Your task to perform on an android device: manage bookmarks in the chrome app Image 0: 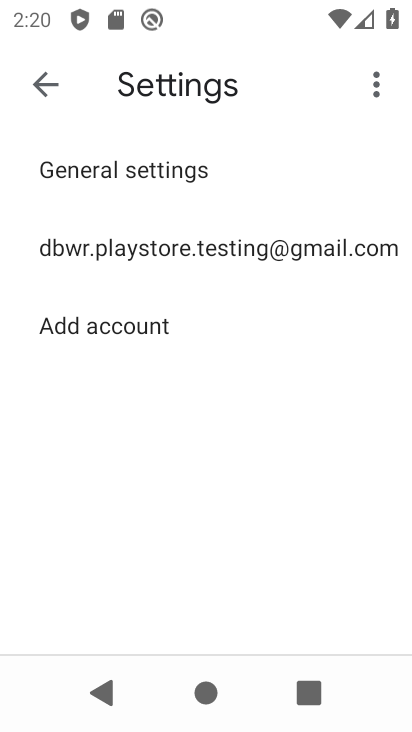
Step 0: press home button
Your task to perform on an android device: manage bookmarks in the chrome app Image 1: 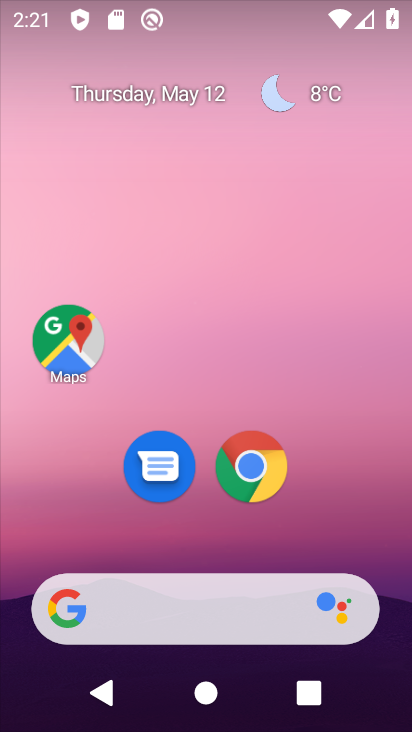
Step 1: click (272, 476)
Your task to perform on an android device: manage bookmarks in the chrome app Image 2: 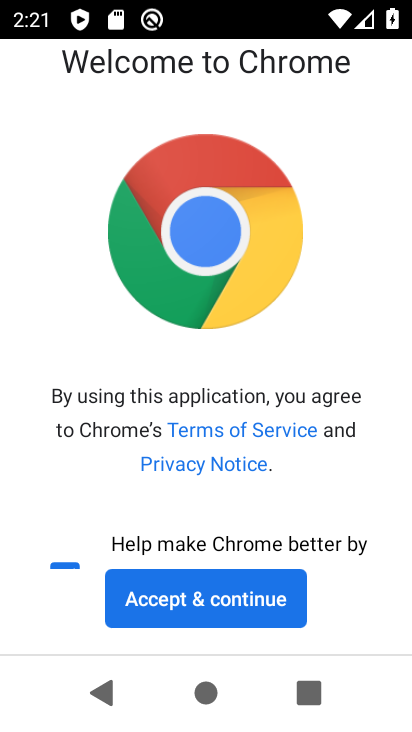
Step 2: click (194, 597)
Your task to perform on an android device: manage bookmarks in the chrome app Image 3: 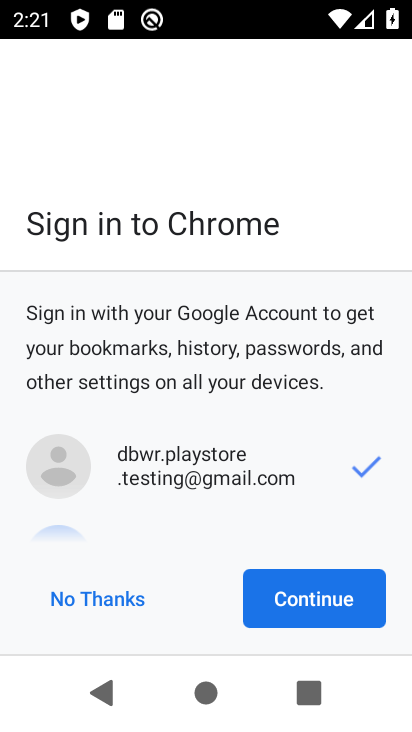
Step 3: click (309, 604)
Your task to perform on an android device: manage bookmarks in the chrome app Image 4: 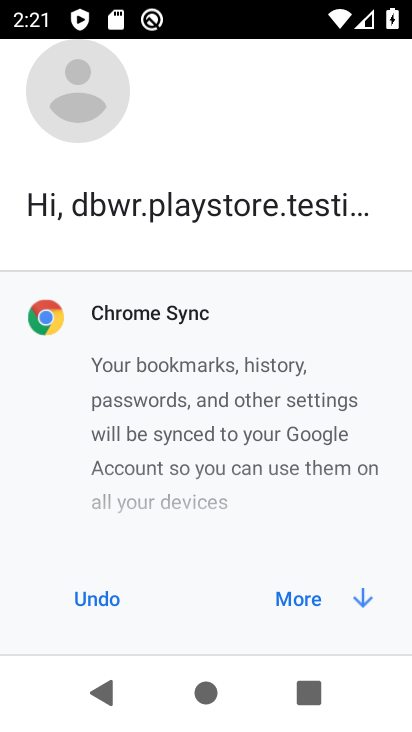
Step 4: click (309, 604)
Your task to perform on an android device: manage bookmarks in the chrome app Image 5: 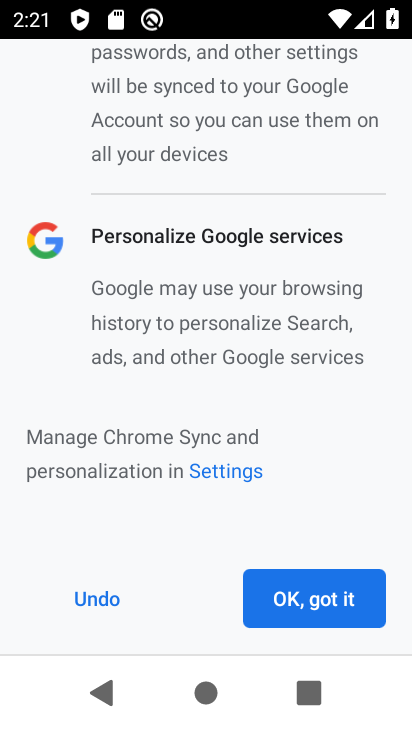
Step 5: click (309, 604)
Your task to perform on an android device: manage bookmarks in the chrome app Image 6: 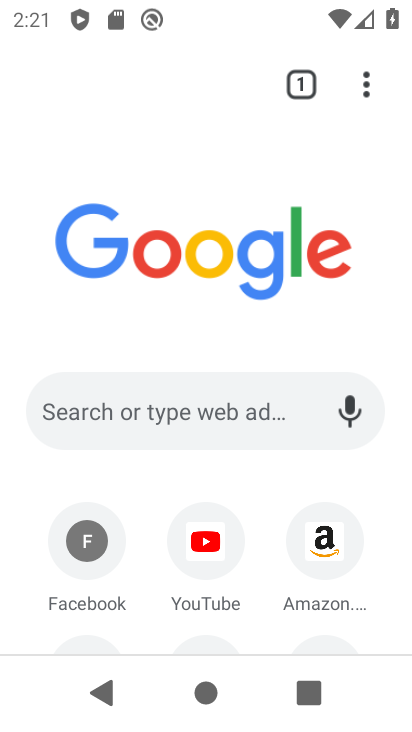
Step 6: click (368, 88)
Your task to perform on an android device: manage bookmarks in the chrome app Image 7: 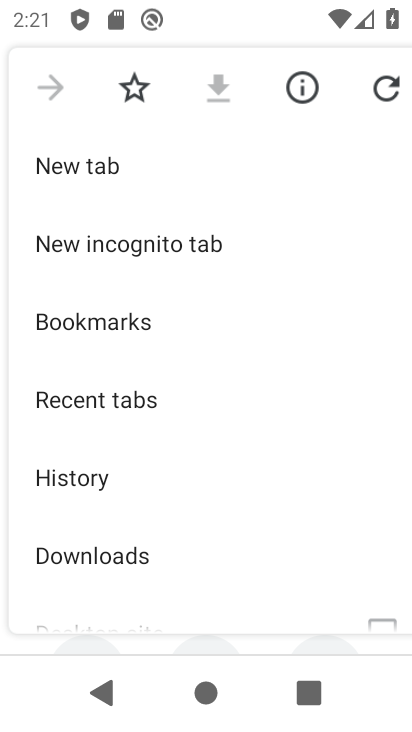
Step 7: click (154, 321)
Your task to perform on an android device: manage bookmarks in the chrome app Image 8: 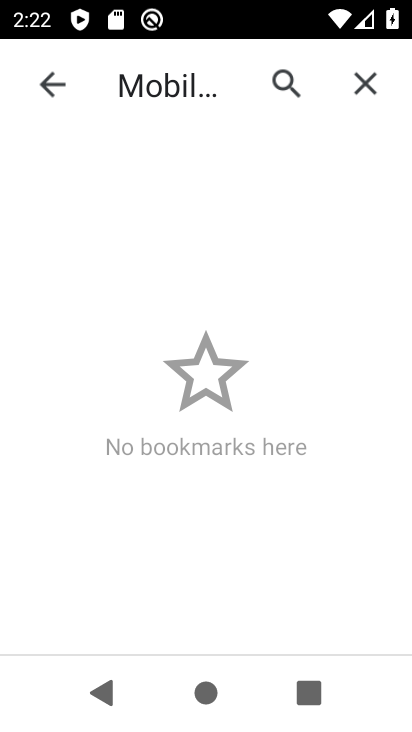
Step 8: task complete